Your task to perform on an android device: see tabs open on other devices in the chrome app Image 0: 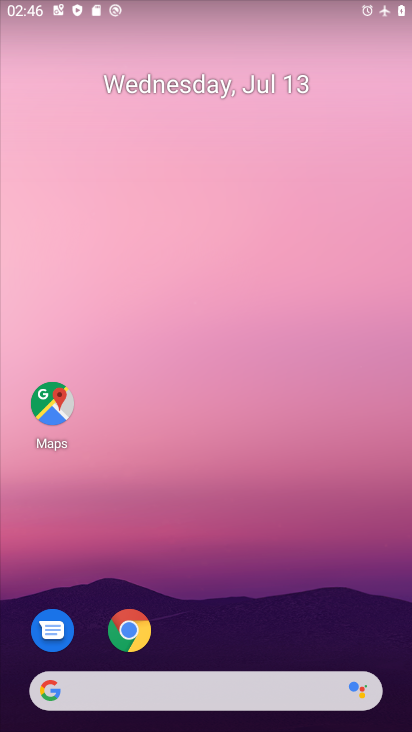
Step 0: click (128, 635)
Your task to perform on an android device: see tabs open on other devices in the chrome app Image 1: 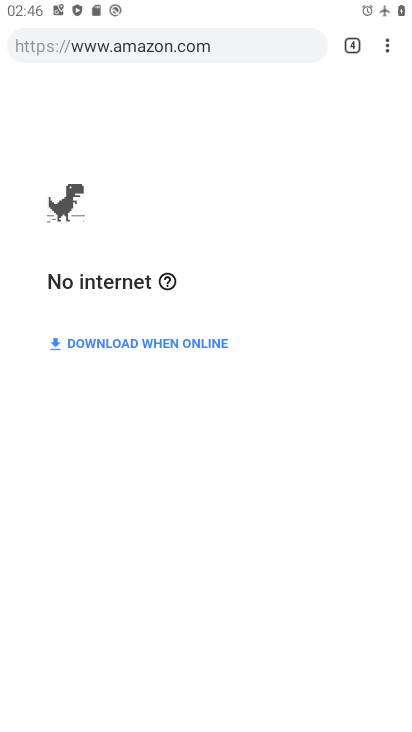
Step 1: click (381, 46)
Your task to perform on an android device: see tabs open on other devices in the chrome app Image 2: 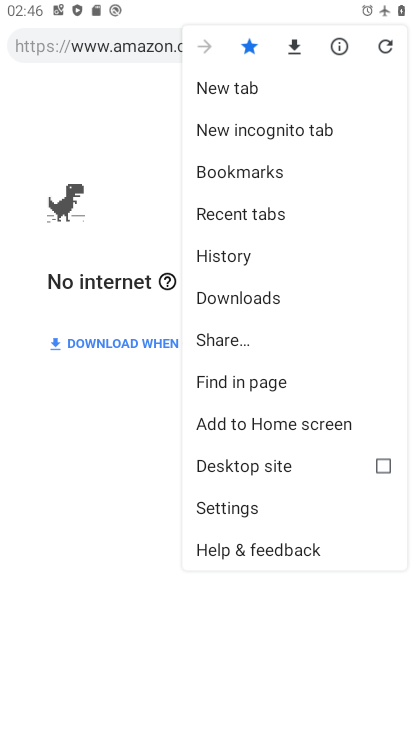
Step 2: click (261, 228)
Your task to perform on an android device: see tabs open on other devices in the chrome app Image 3: 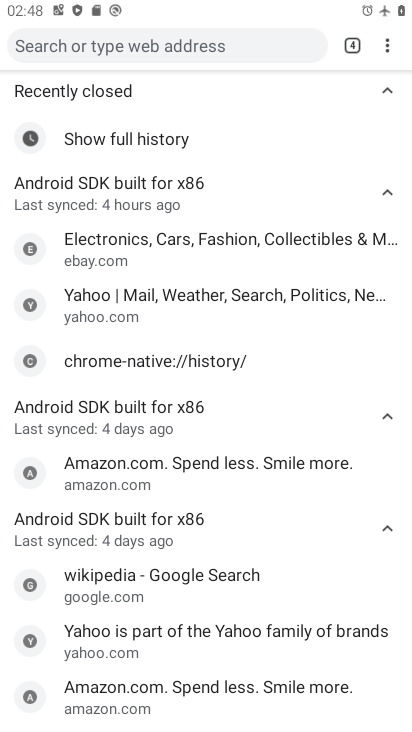
Step 3: task complete